Your task to perform on an android device: Open the phone app and click the voicemail tab. Image 0: 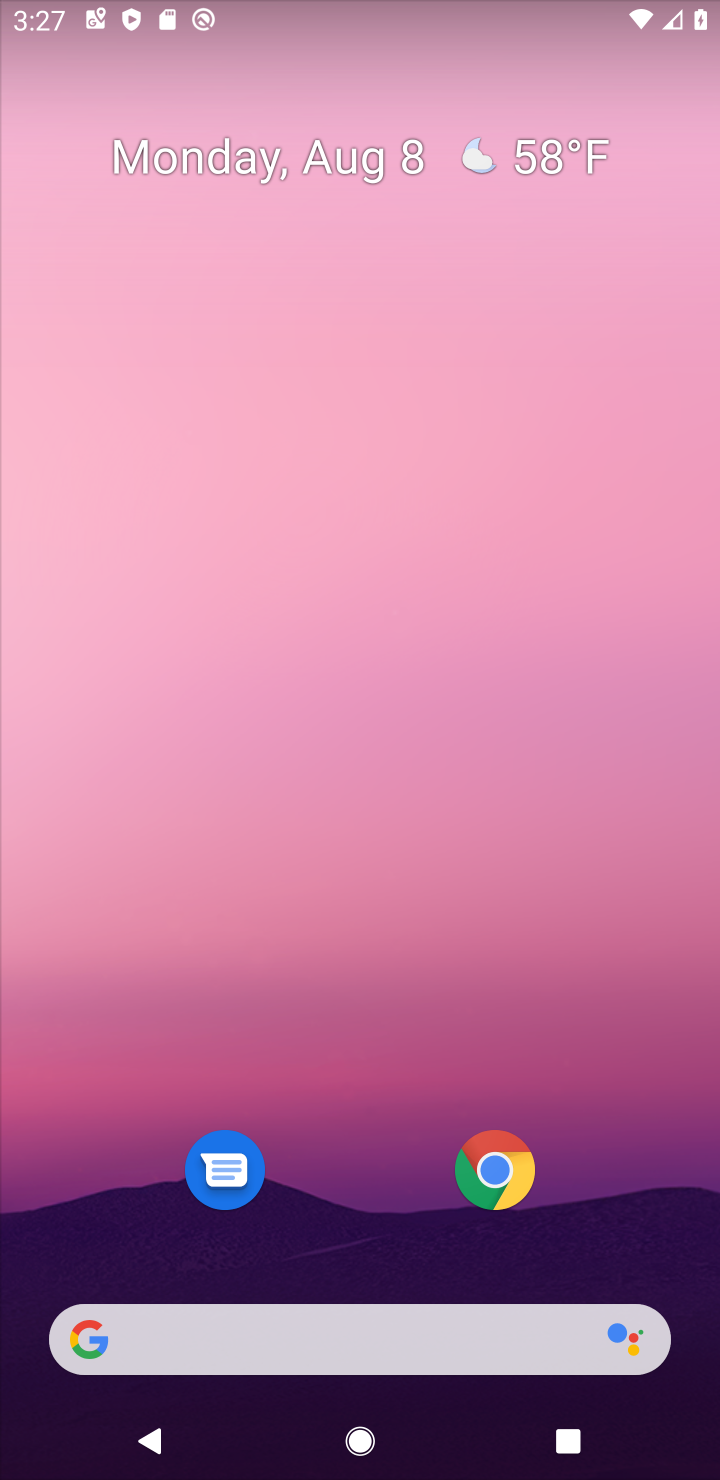
Step 0: click (399, 359)
Your task to perform on an android device: Open the phone app and click the voicemail tab. Image 1: 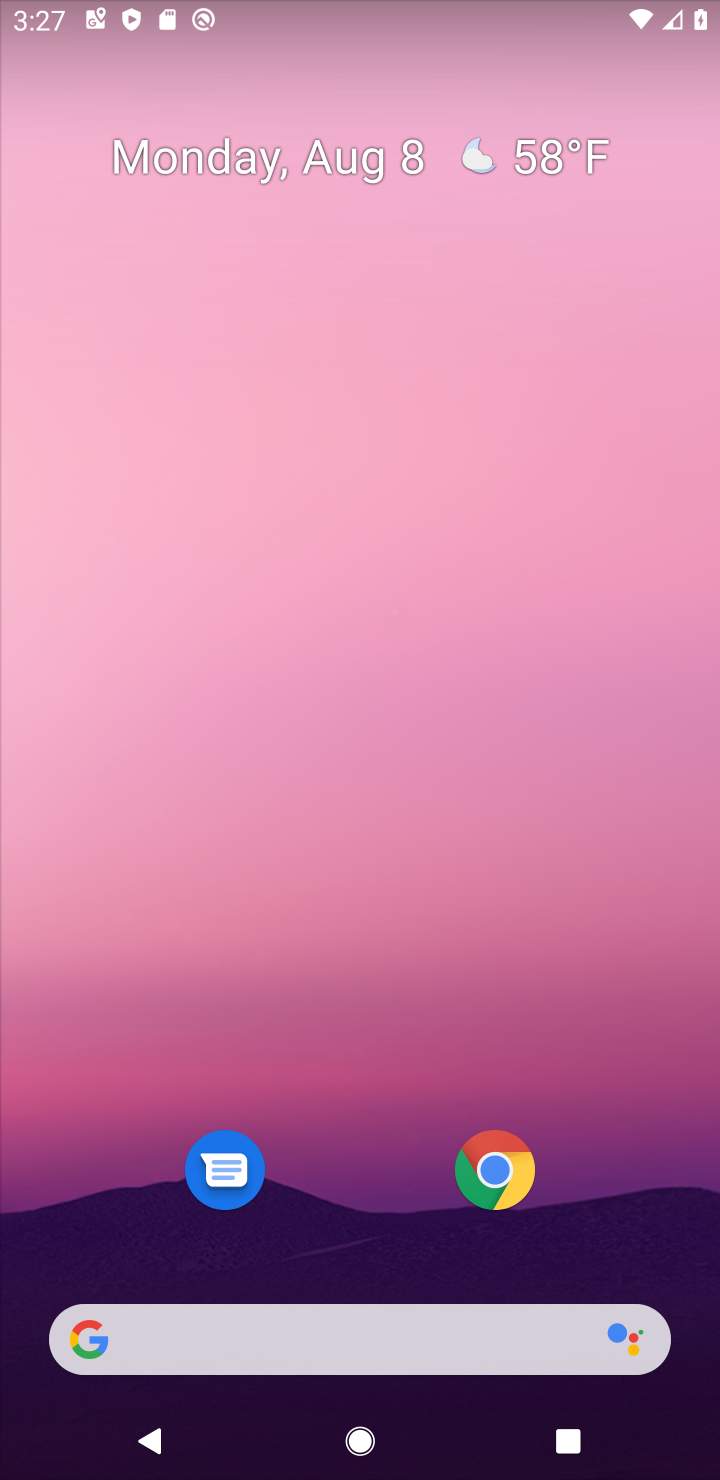
Step 1: drag from (384, 1077) to (376, 263)
Your task to perform on an android device: Open the phone app and click the voicemail tab. Image 2: 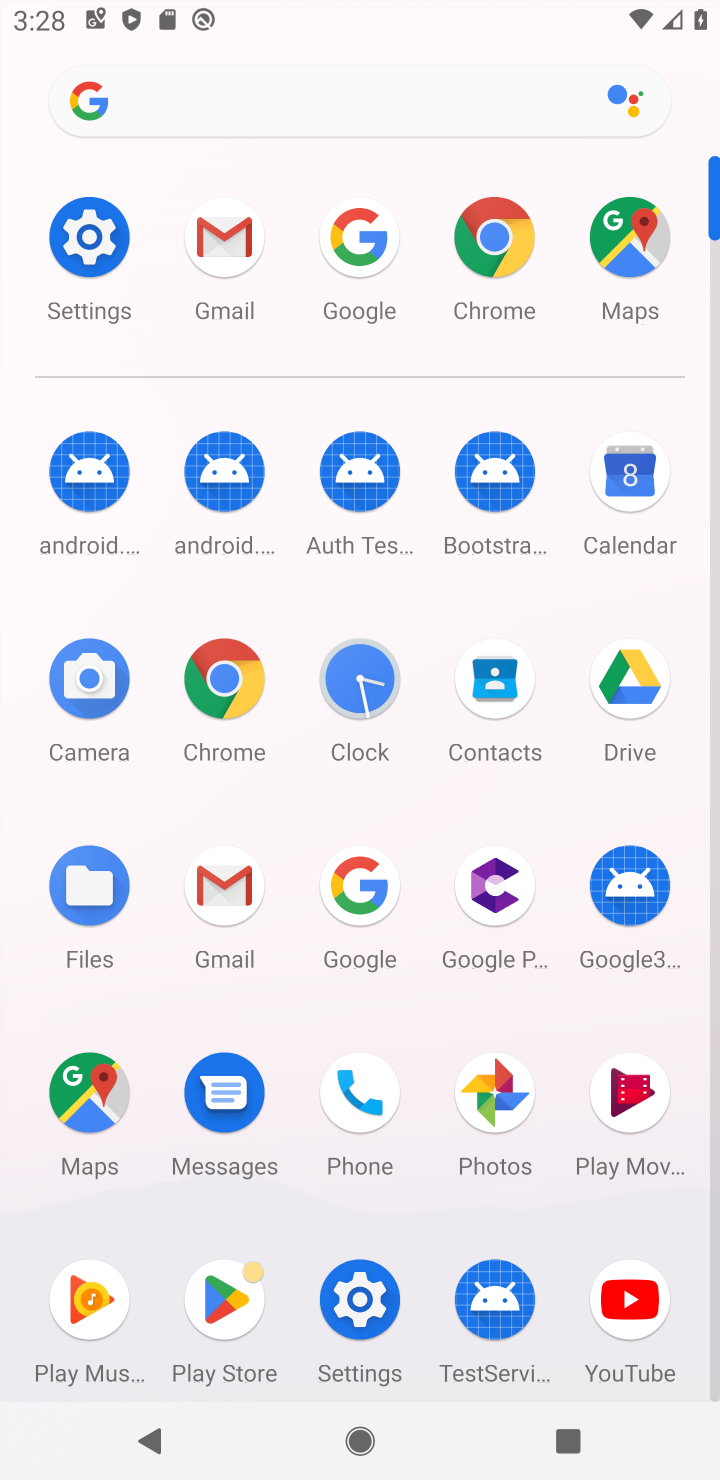
Step 2: click (344, 1107)
Your task to perform on an android device: Open the phone app and click the voicemail tab. Image 3: 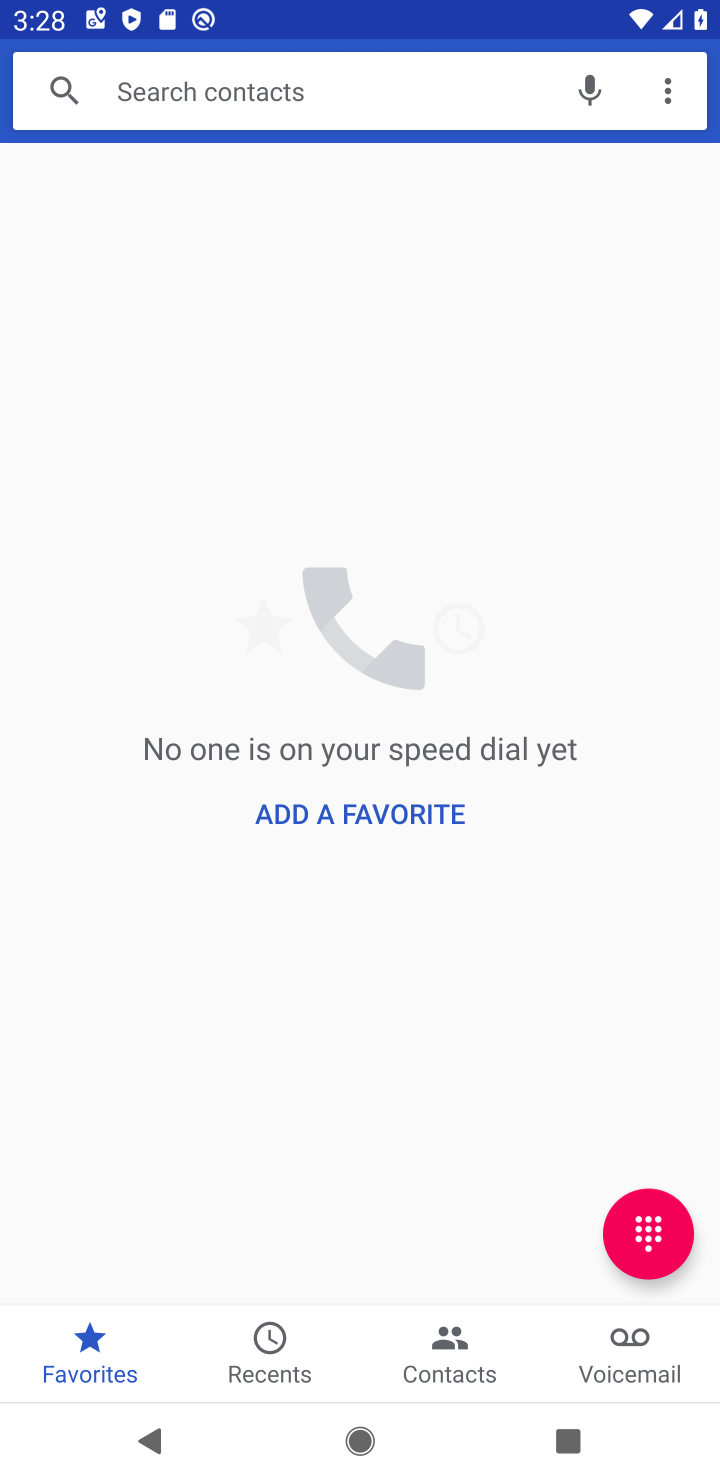
Step 3: click (610, 1346)
Your task to perform on an android device: Open the phone app and click the voicemail tab. Image 4: 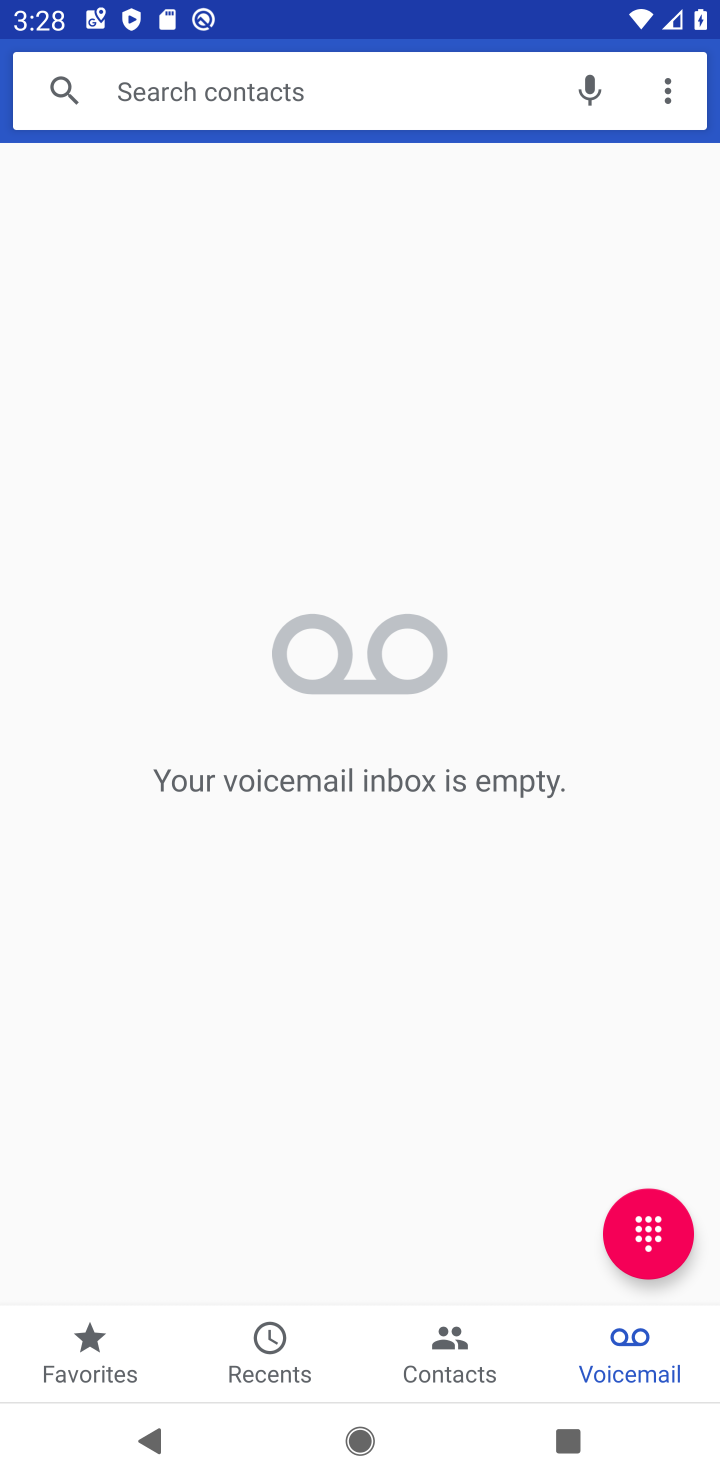
Step 4: task complete